Your task to perform on an android device: open app "Reddit" (install if not already installed), go to login, and select forgot password Image 0: 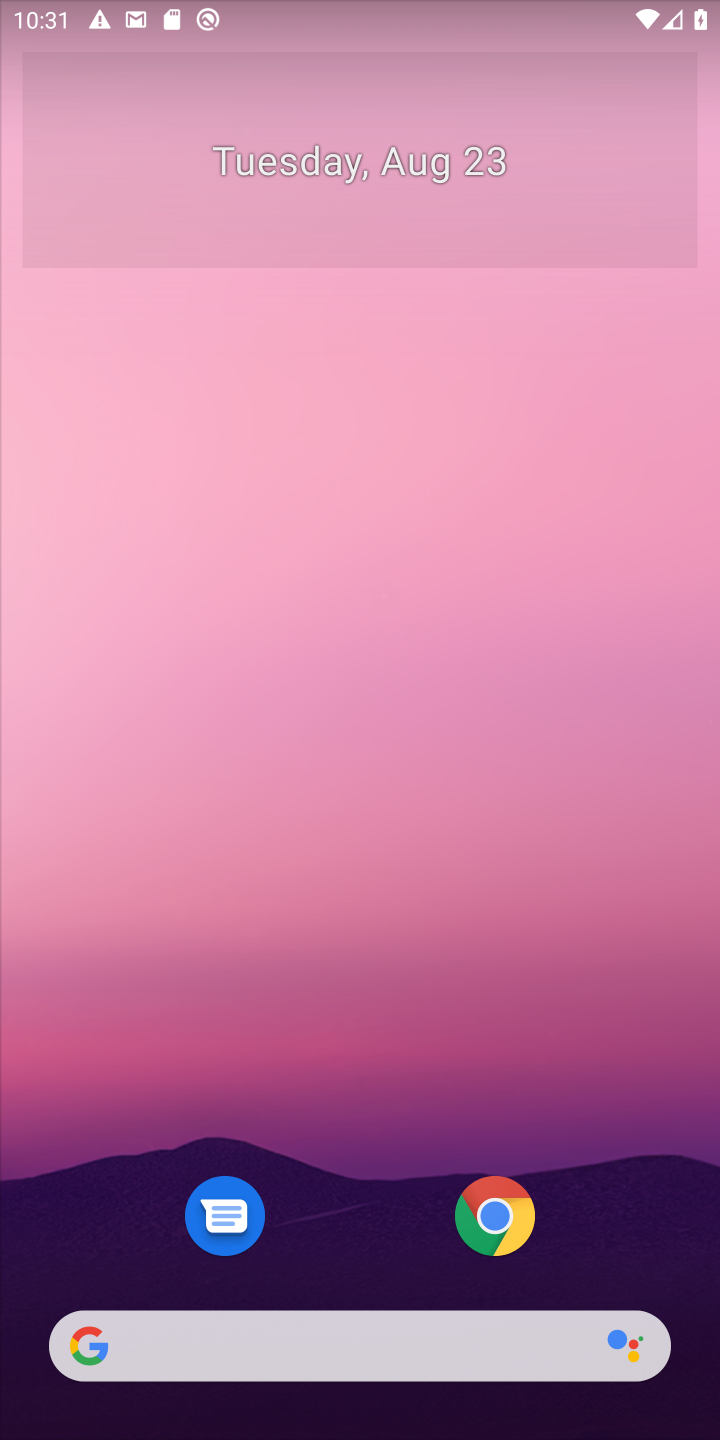
Step 0: drag from (314, 1329) to (425, 31)
Your task to perform on an android device: open app "Reddit" (install if not already installed), go to login, and select forgot password Image 1: 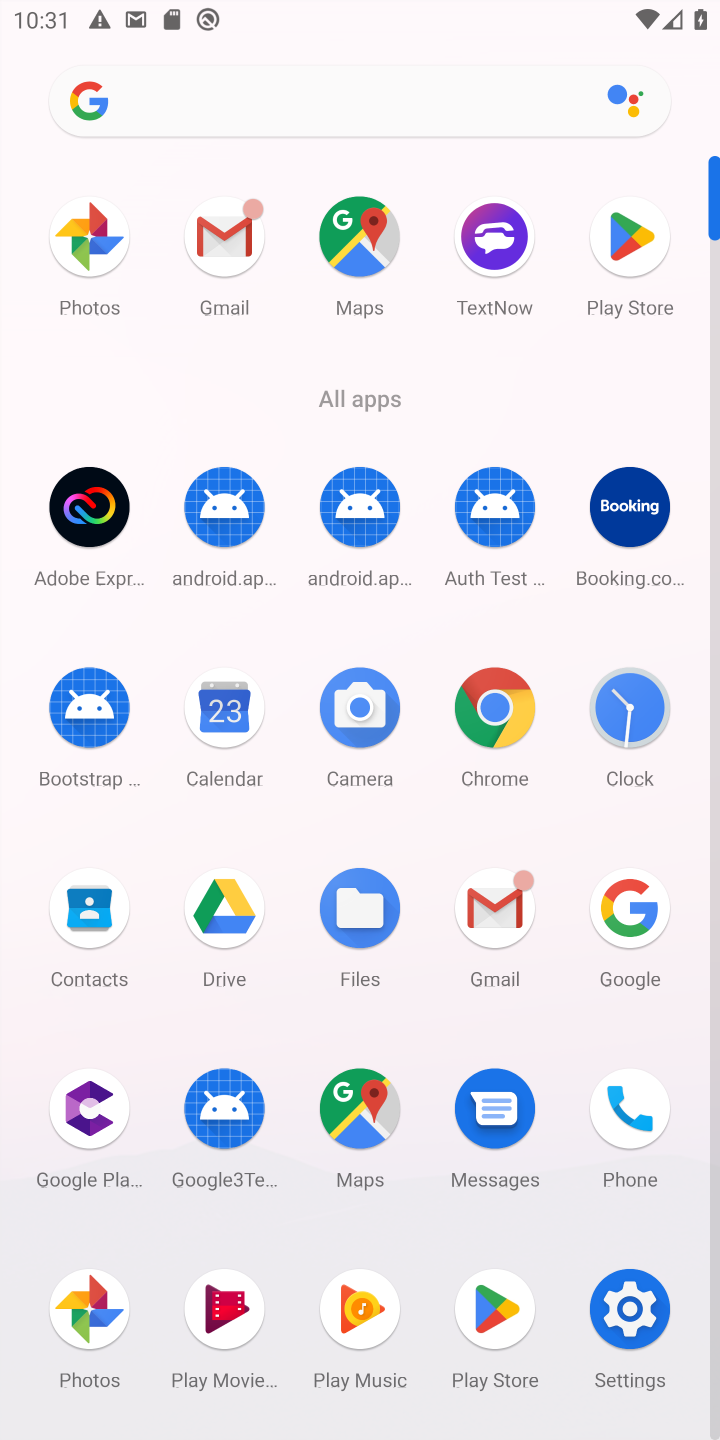
Step 1: click (639, 236)
Your task to perform on an android device: open app "Reddit" (install if not already installed), go to login, and select forgot password Image 2: 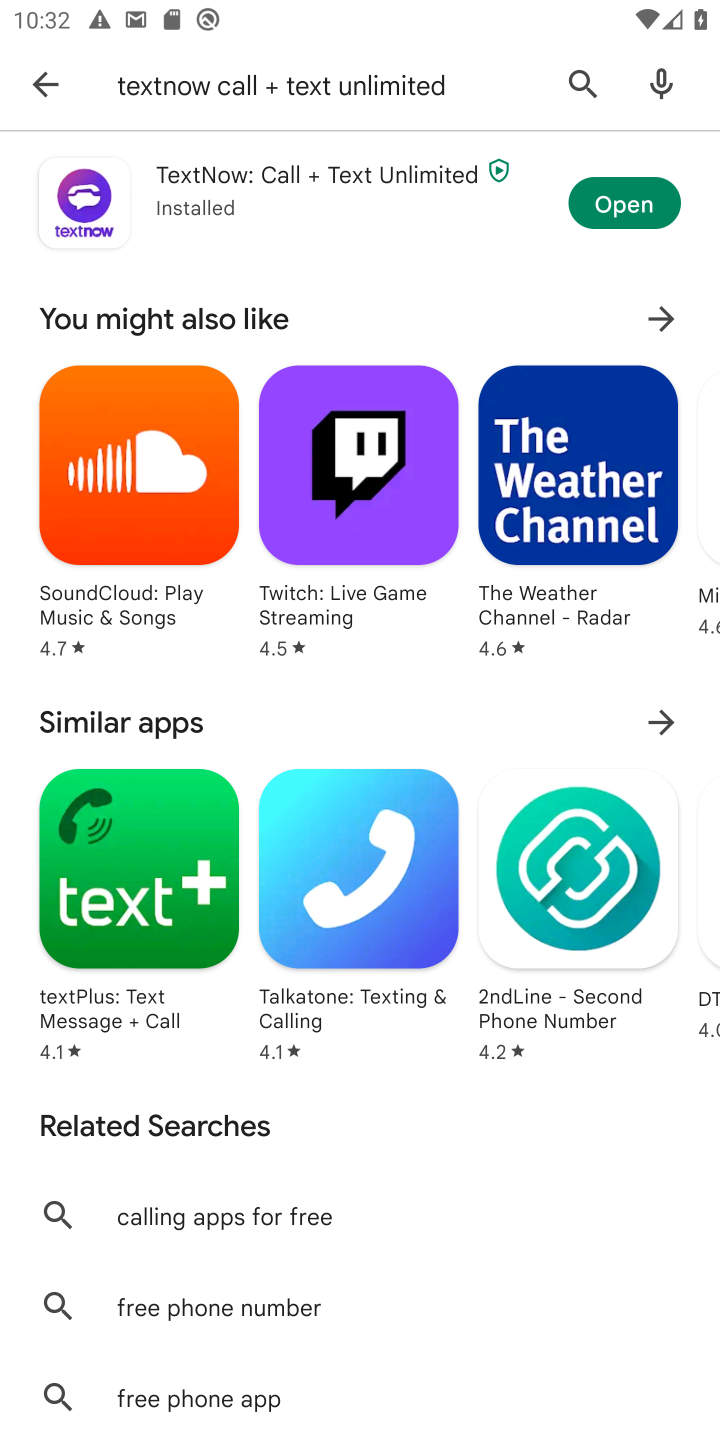
Step 2: press back button
Your task to perform on an android device: open app "Reddit" (install if not already installed), go to login, and select forgot password Image 3: 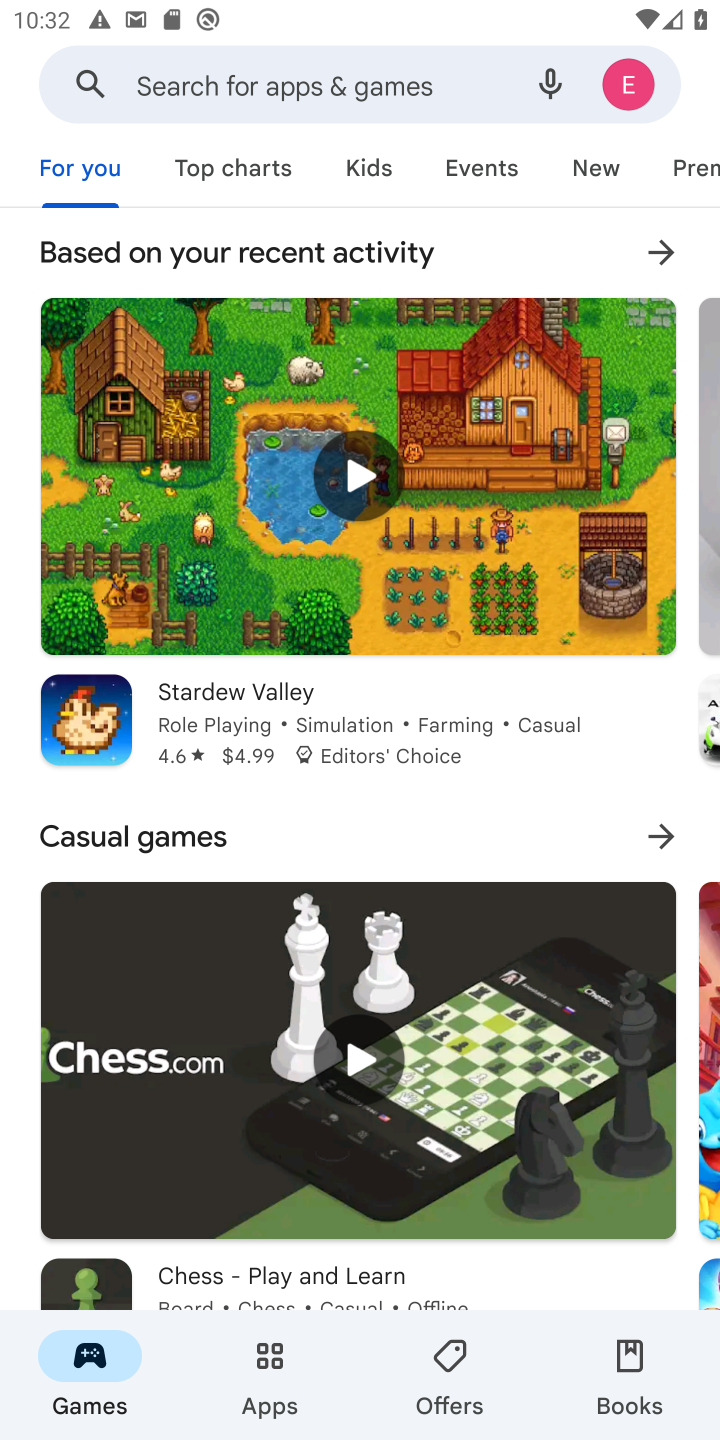
Step 3: click (370, 81)
Your task to perform on an android device: open app "Reddit" (install if not already installed), go to login, and select forgot password Image 4: 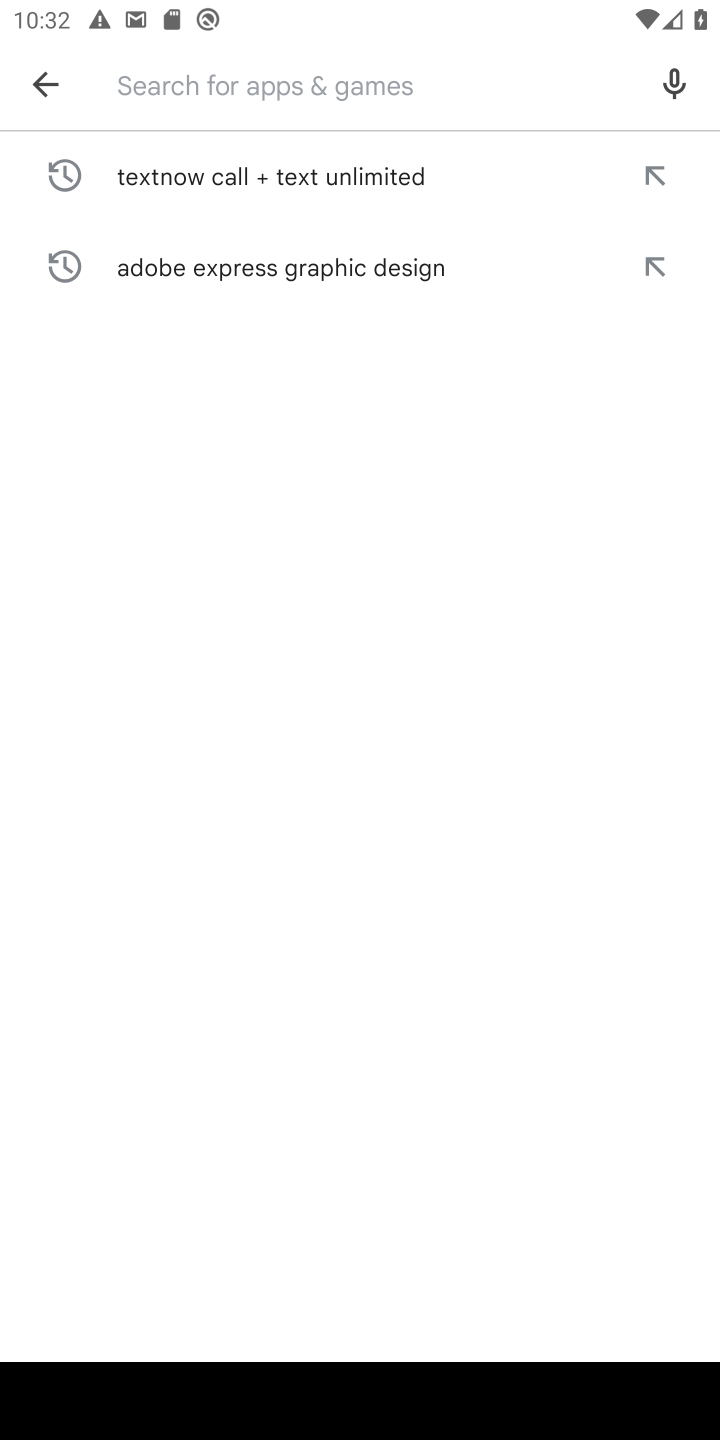
Step 4: type "Reddit"
Your task to perform on an android device: open app "Reddit" (install if not already installed), go to login, and select forgot password Image 5: 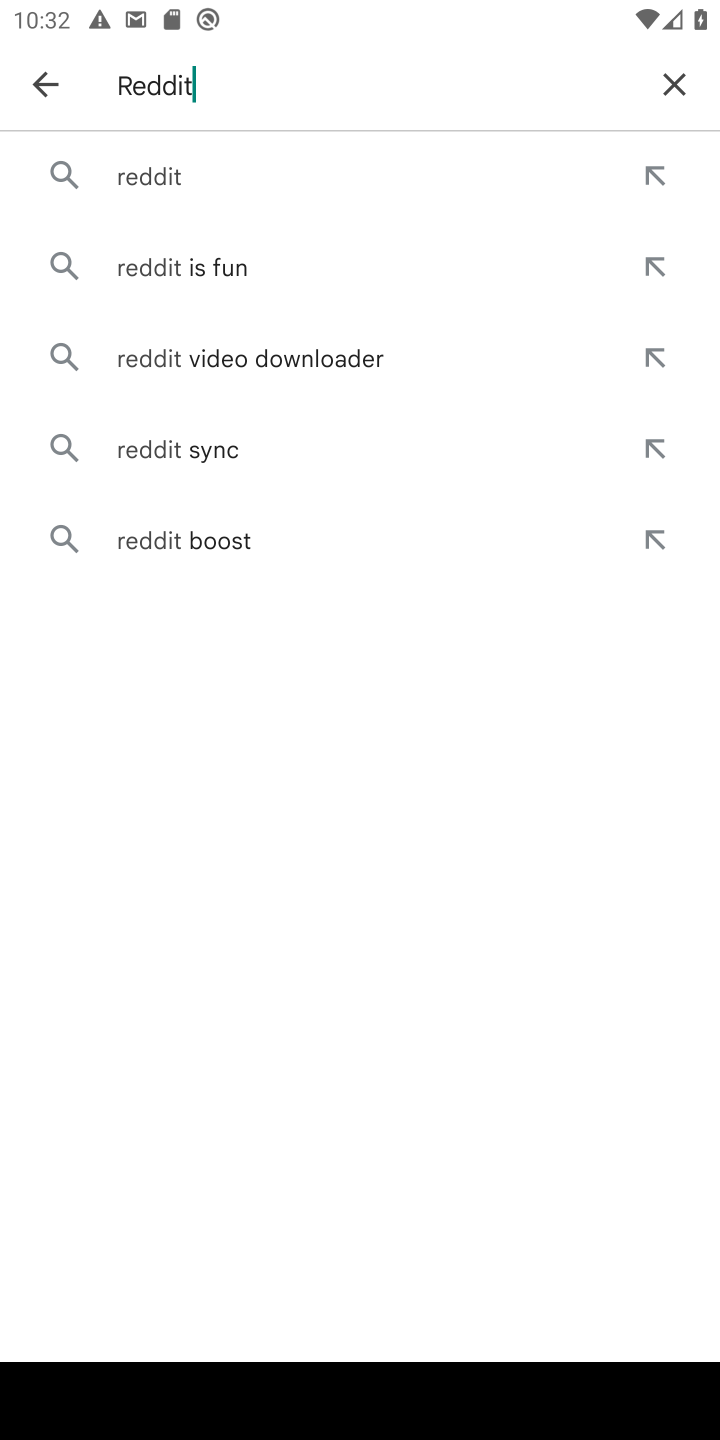
Step 5: click (161, 181)
Your task to perform on an android device: open app "Reddit" (install if not already installed), go to login, and select forgot password Image 6: 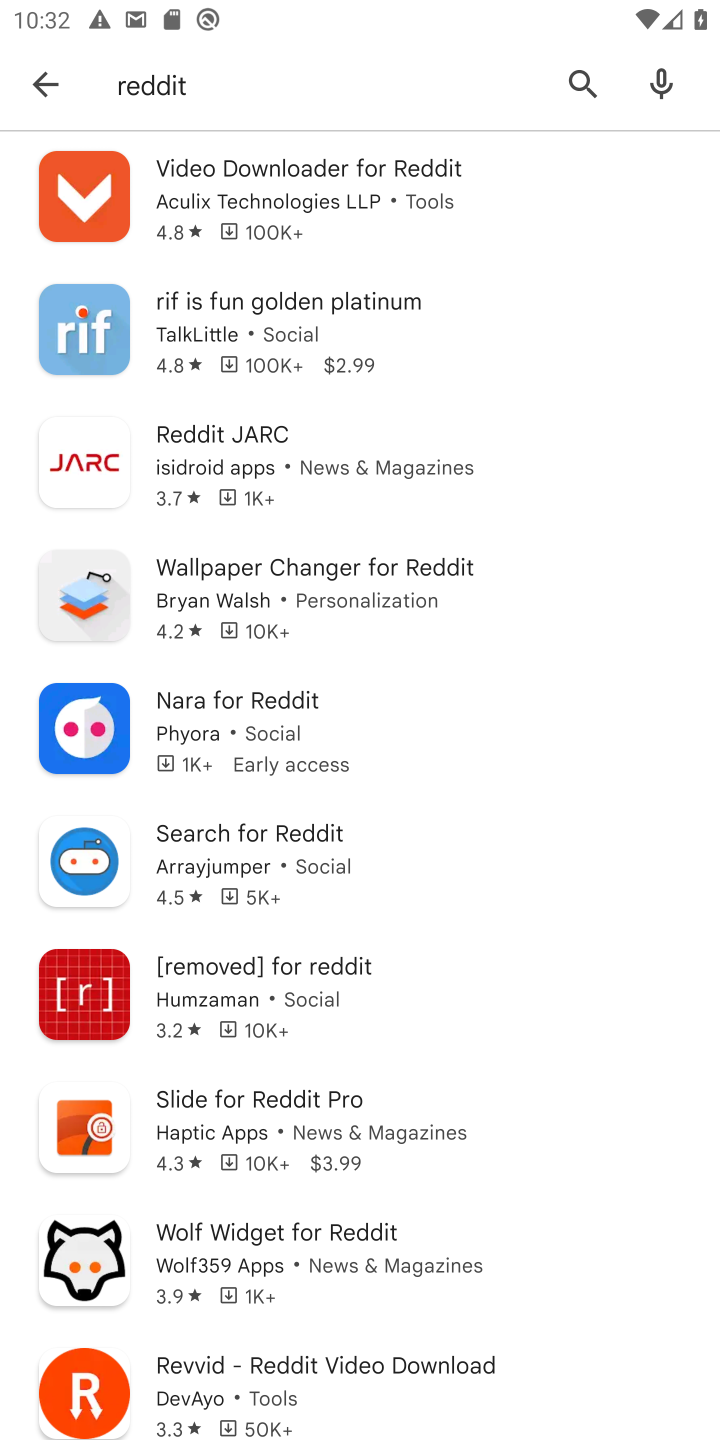
Step 6: drag from (313, 1048) to (402, 854)
Your task to perform on an android device: open app "Reddit" (install if not already installed), go to login, and select forgot password Image 7: 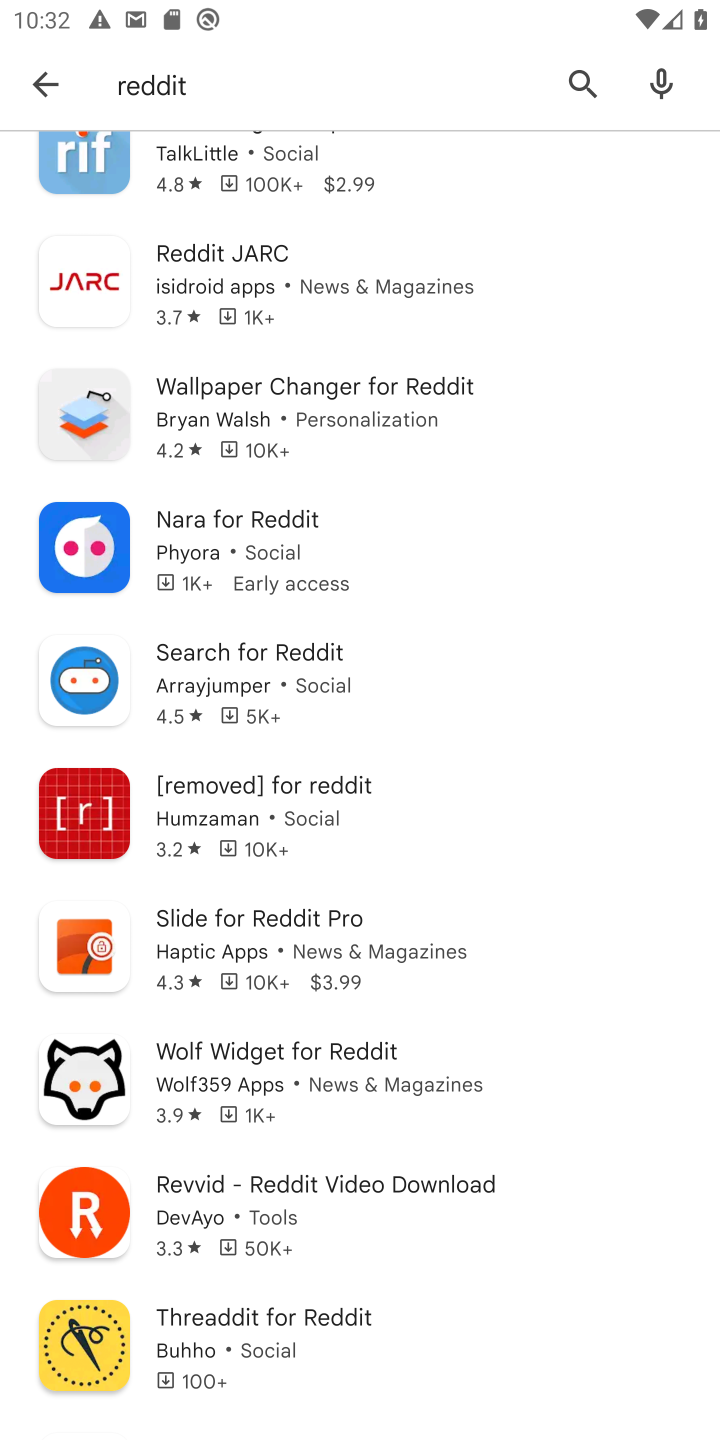
Step 7: drag from (415, 1244) to (536, 1024)
Your task to perform on an android device: open app "Reddit" (install if not already installed), go to login, and select forgot password Image 8: 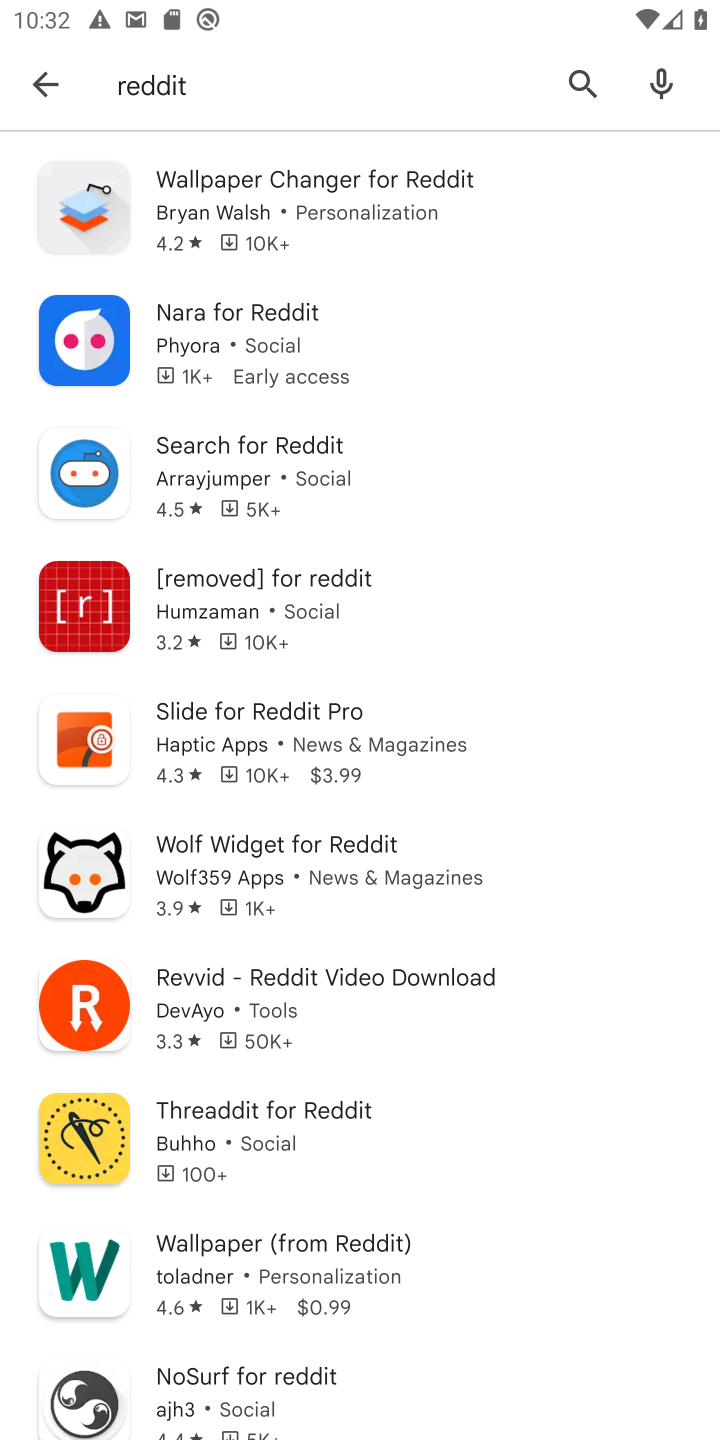
Step 8: drag from (417, 1293) to (535, 1096)
Your task to perform on an android device: open app "Reddit" (install if not already installed), go to login, and select forgot password Image 9: 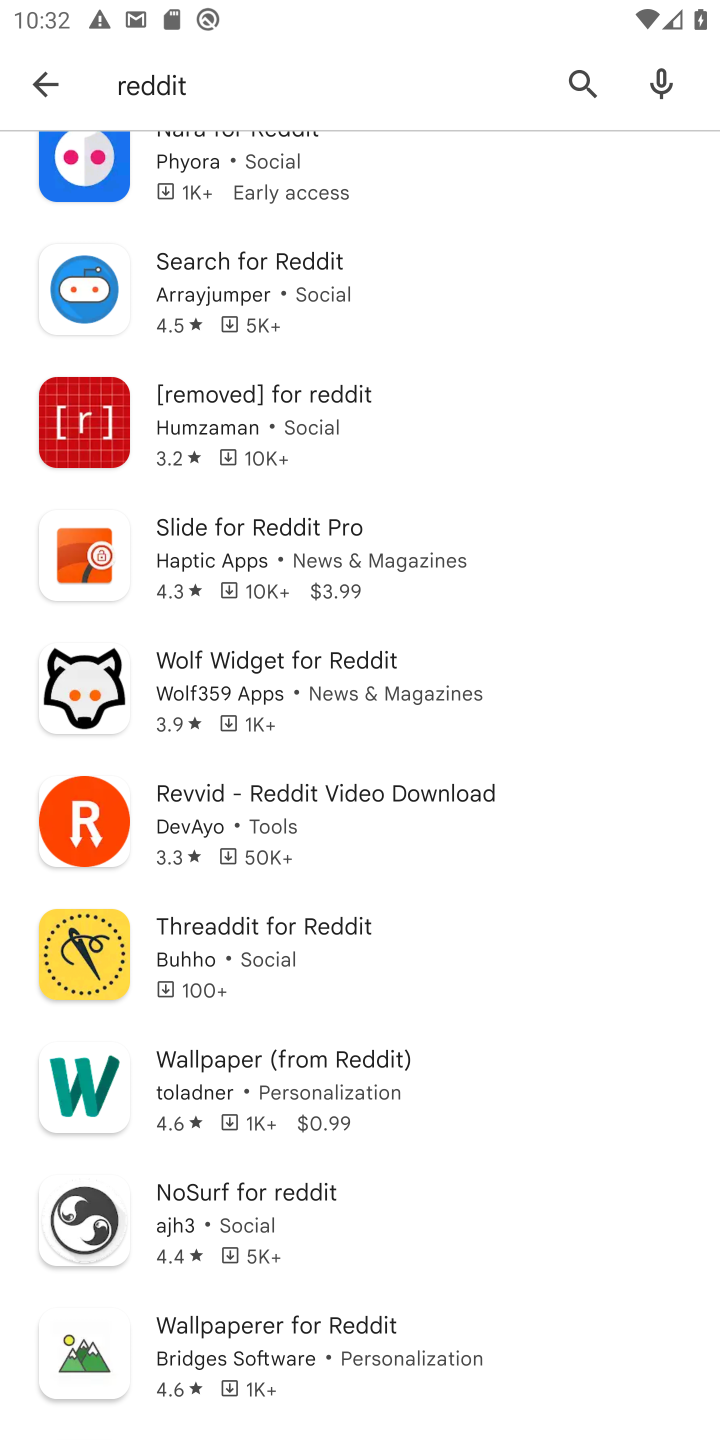
Step 9: drag from (367, 1266) to (544, 1009)
Your task to perform on an android device: open app "Reddit" (install if not already installed), go to login, and select forgot password Image 10: 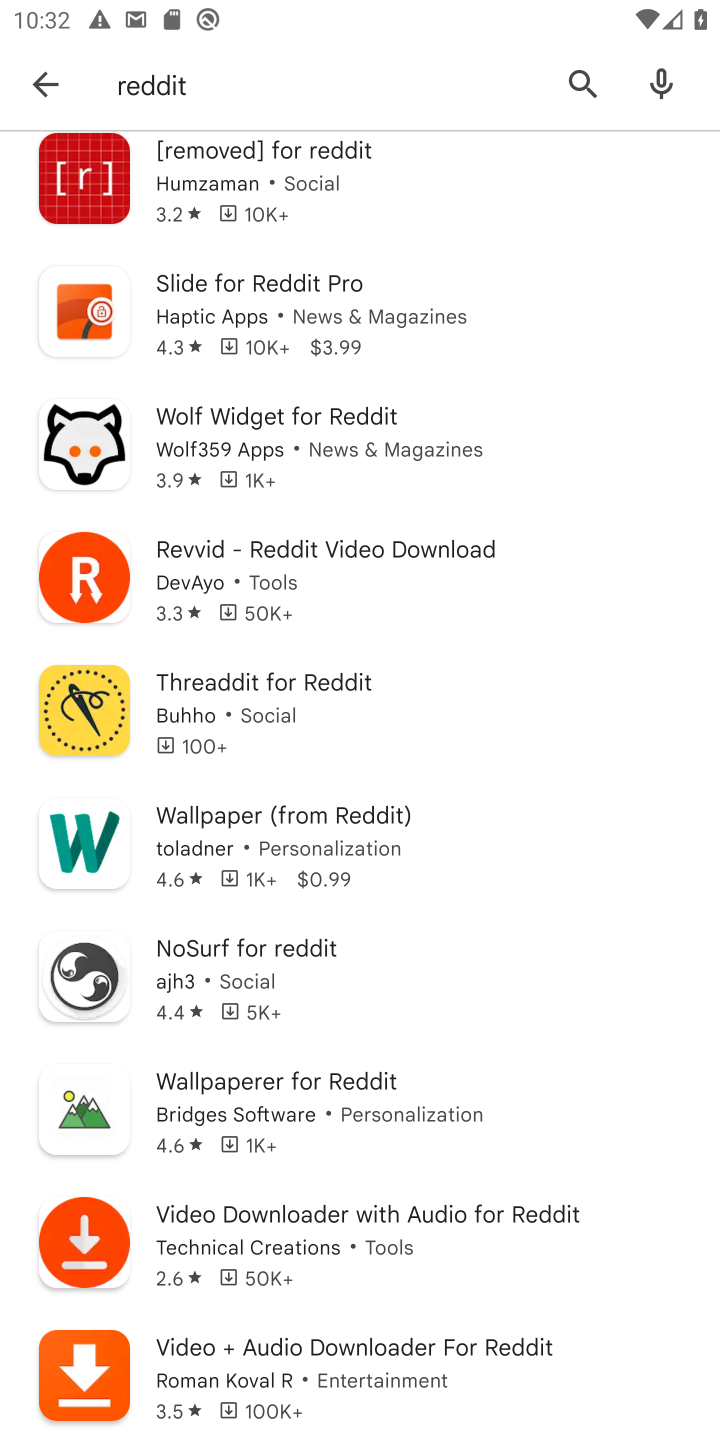
Step 10: drag from (390, 989) to (534, 767)
Your task to perform on an android device: open app "Reddit" (install if not already installed), go to login, and select forgot password Image 11: 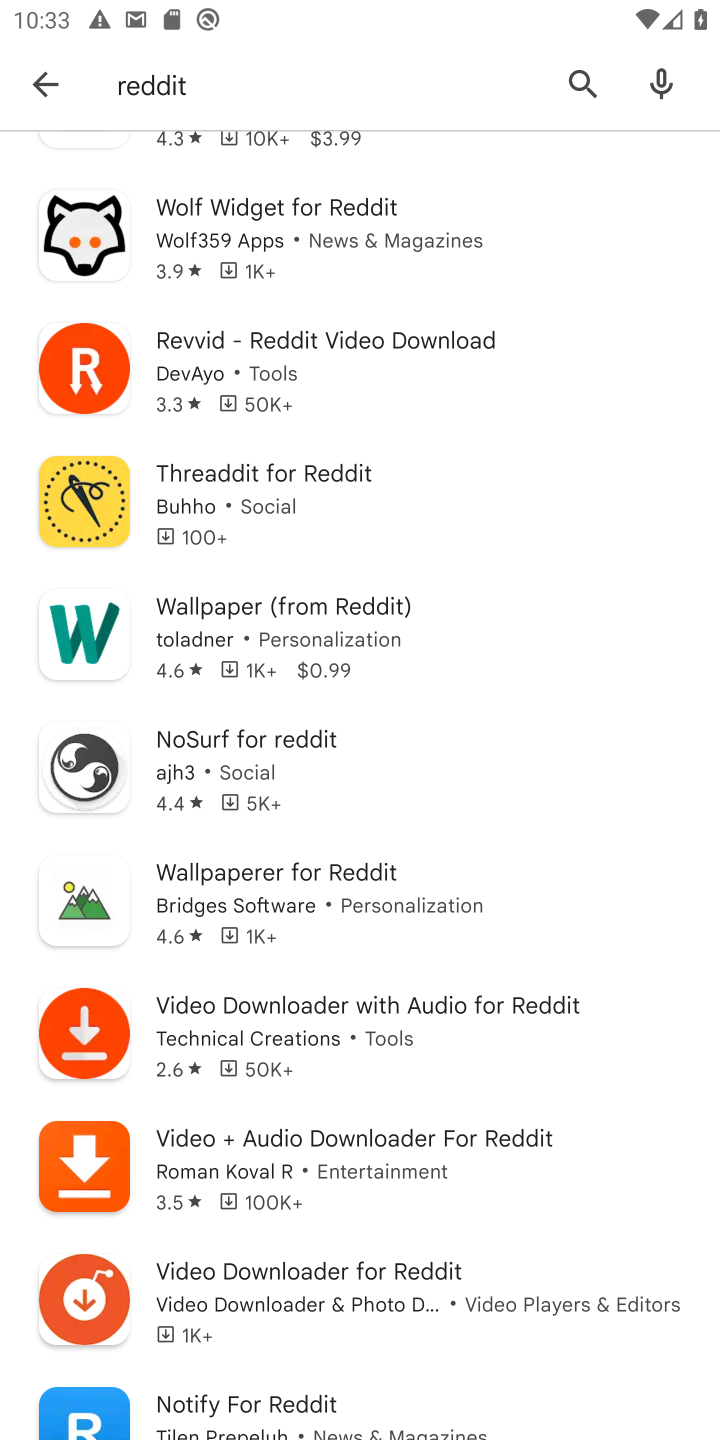
Step 11: drag from (470, 551) to (464, 871)
Your task to perform on an android device: open app "Reddit" (install if not already installed), go to login, and select forgot password Image 12: 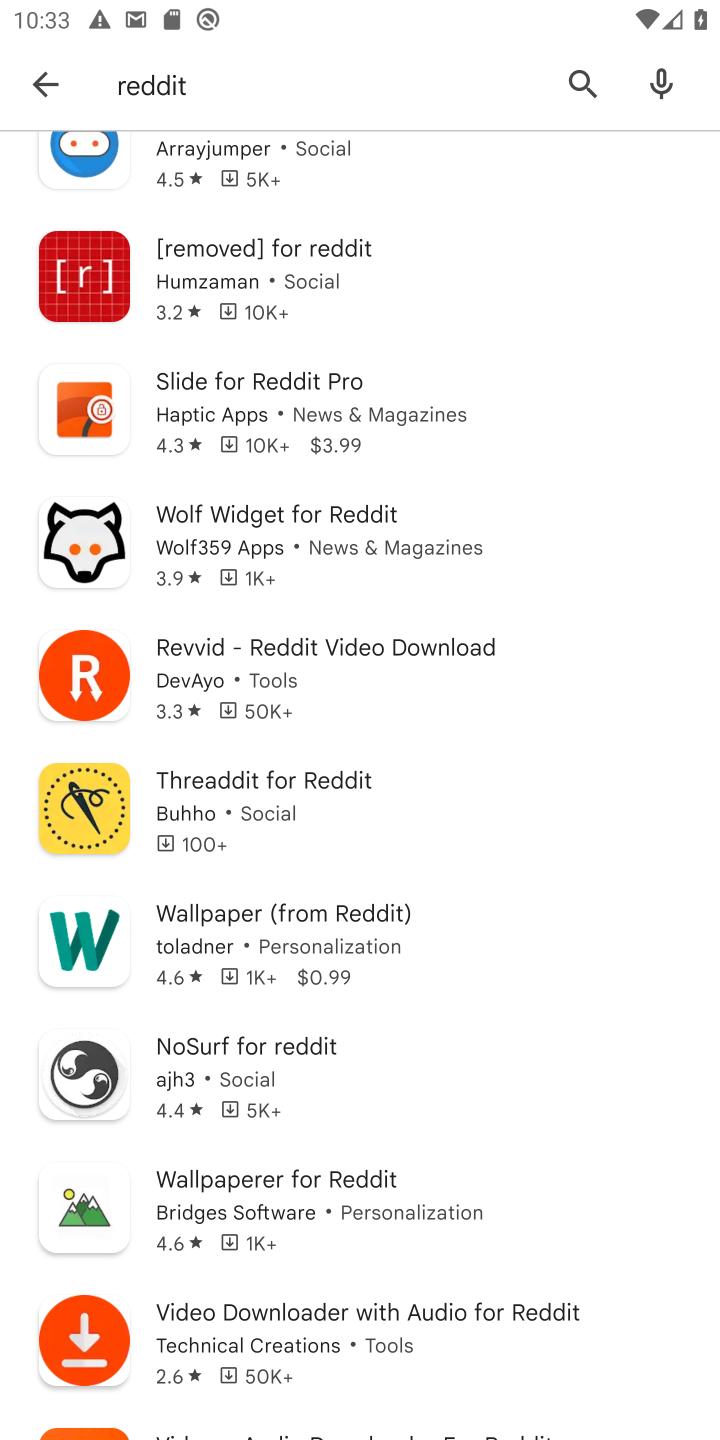
Step 12: drag from (391, 443) to (432, 977)
Your task to perform on an android device: open app "Reddit" (install if not already installed), go to login, and select forgot password Image 13: 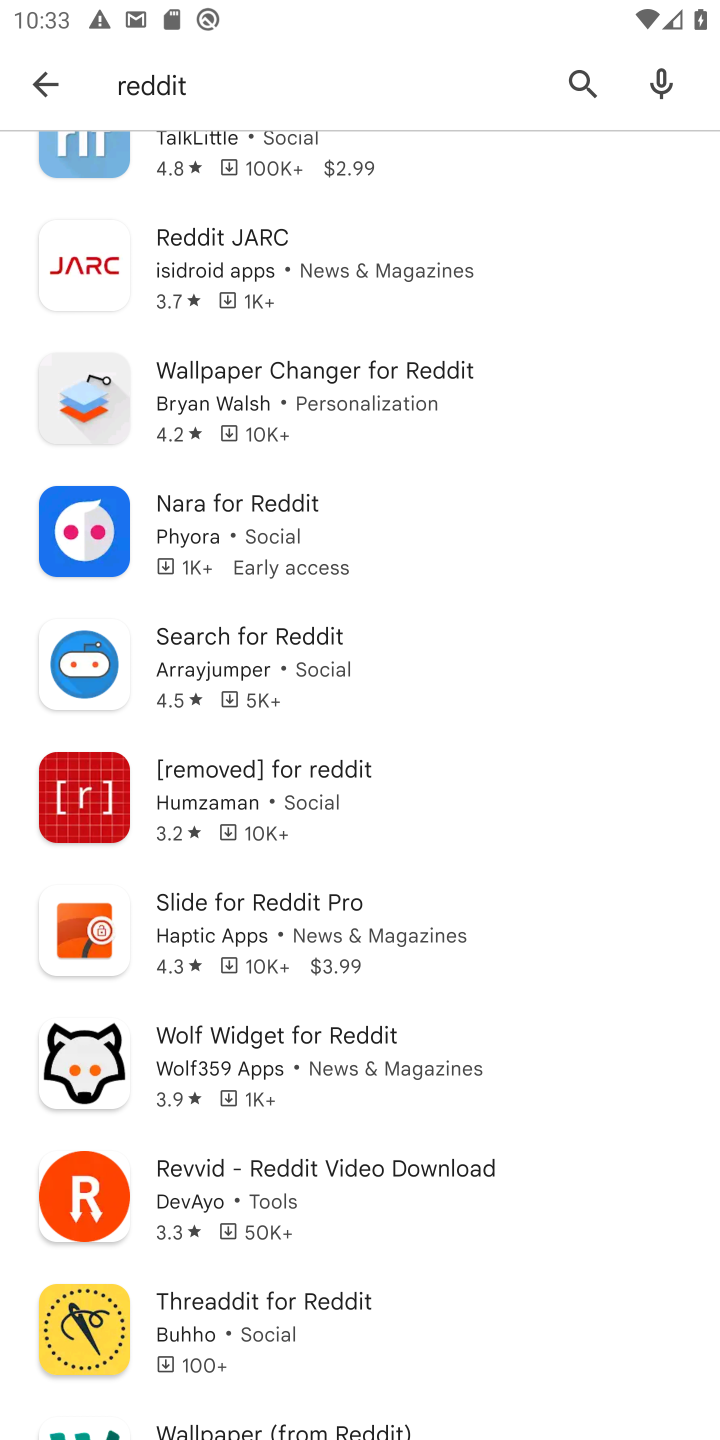
Step 13: drag from (403, 217) to (438, 849)
Your task to perform on an android device: open app "Reddit" (install if not already installed), go to login, and select forgot password Image 14: 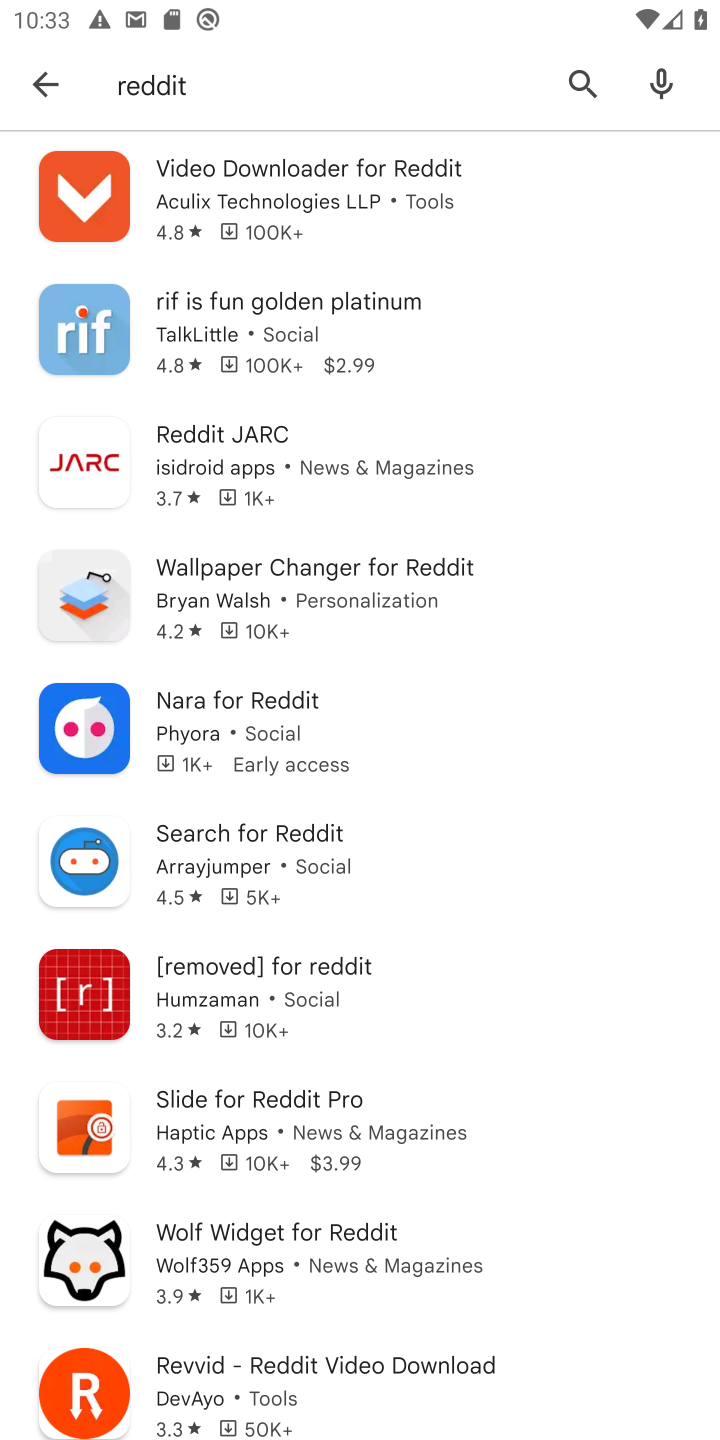
Step 14: drag from (557, 1263) to (719, 987)
Your task to perform on an android device: open app "Reddit" (install if not already installed), go to login, and select forgot password Image 15: 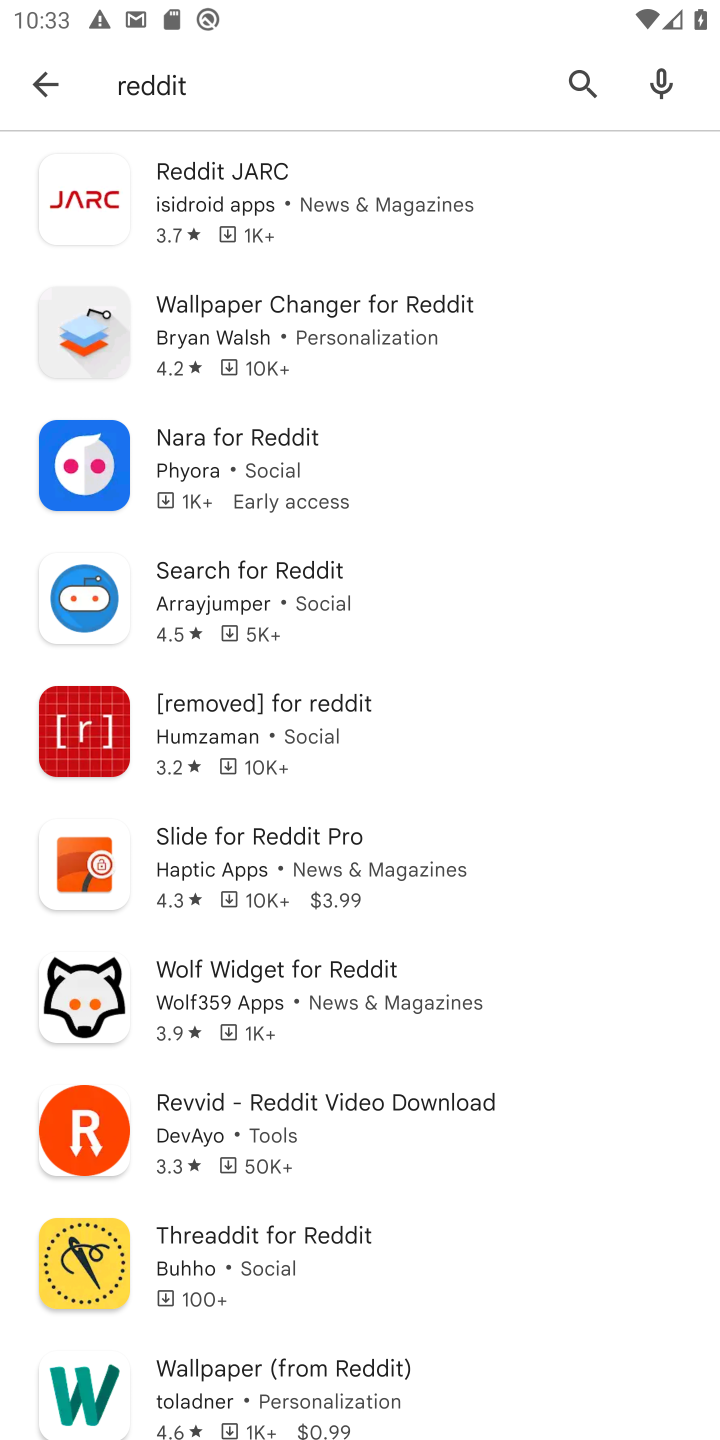
Step 15: drag from (565, 1255) to (664, 970)
Your task to perform on an android device: open app "Reddit" (install if not already installed), go to login, and select forgot password Image 16: 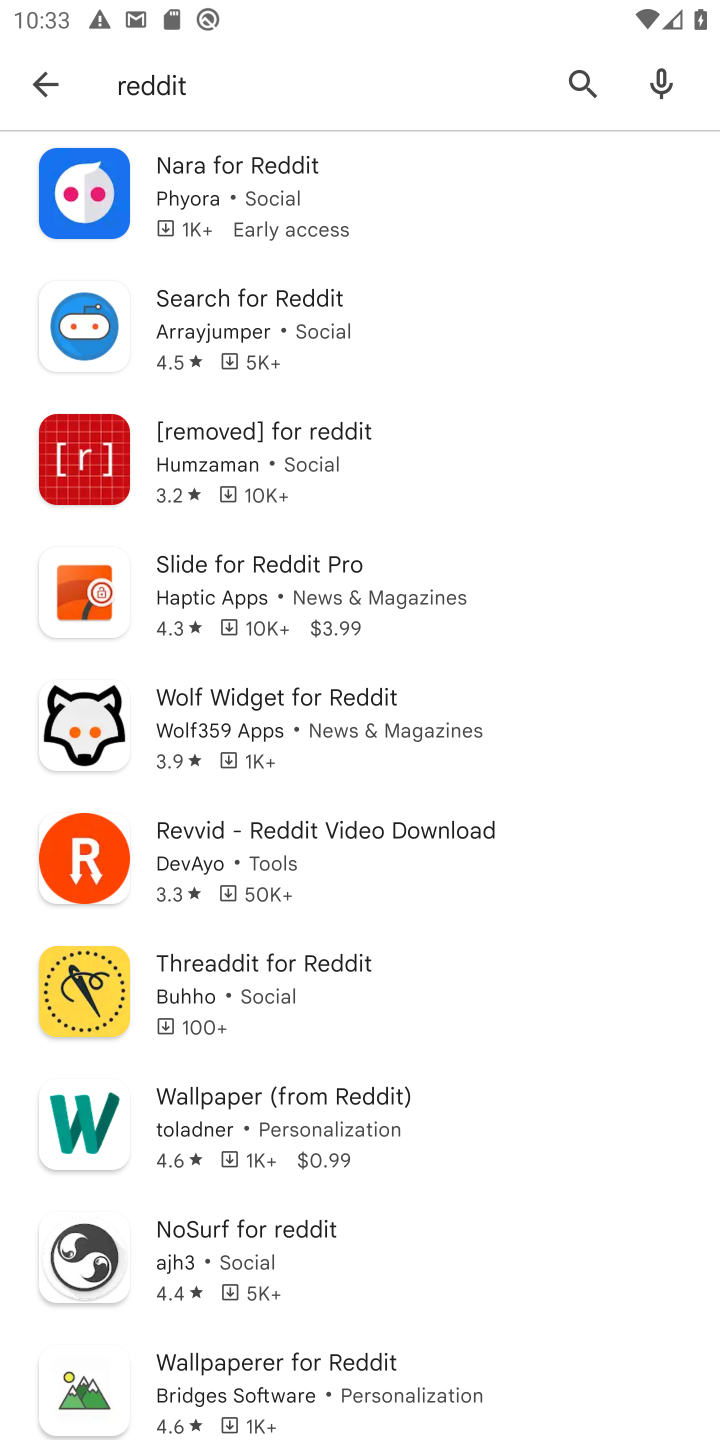
Step 16: drag from (407, 1320) to (566, 1072)
Your task to perform on an android device: open app "Reddit" (install if not already installed), go to login, and select forgot password Image 17: 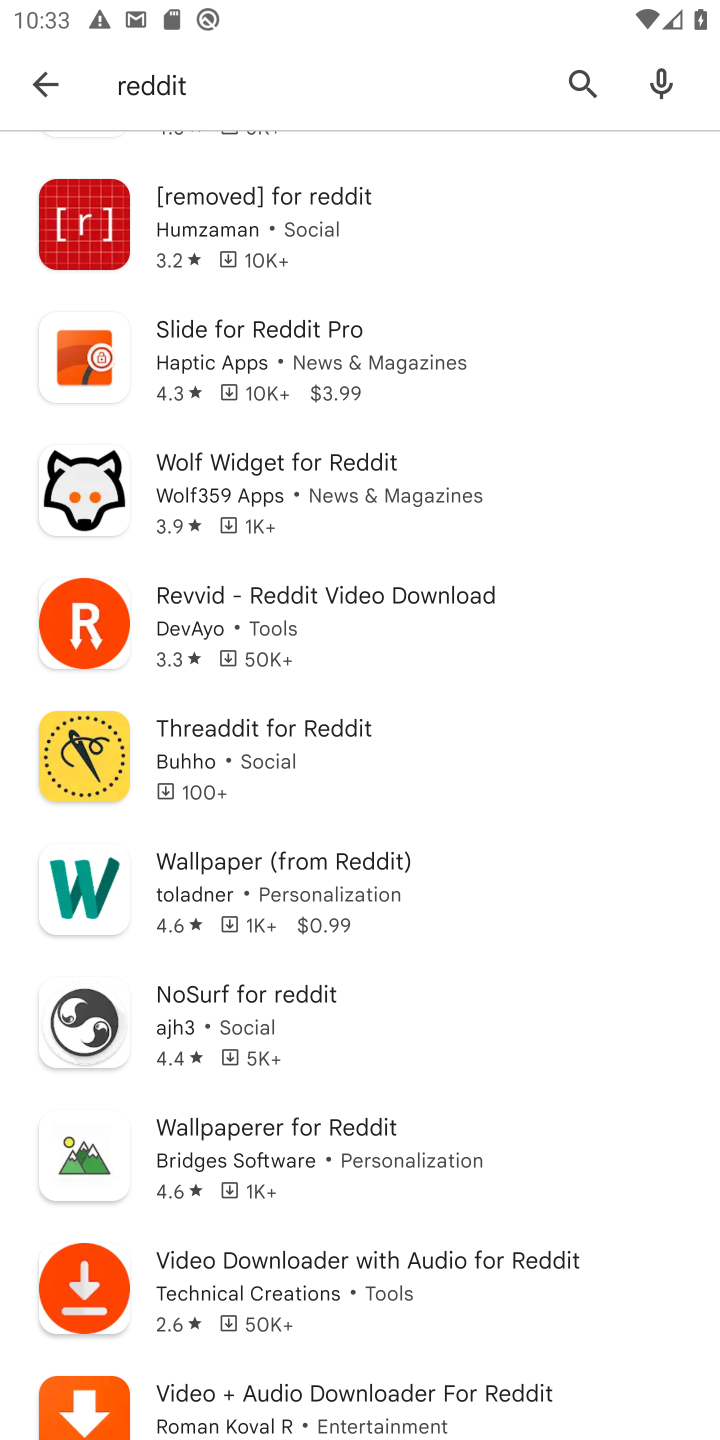
Step 17: drag from (366, 1314) to (519, 989)
Your task to perform on an android device: open app "Reddit" (install if not already installed), go to login, and select forgot password Image 18: 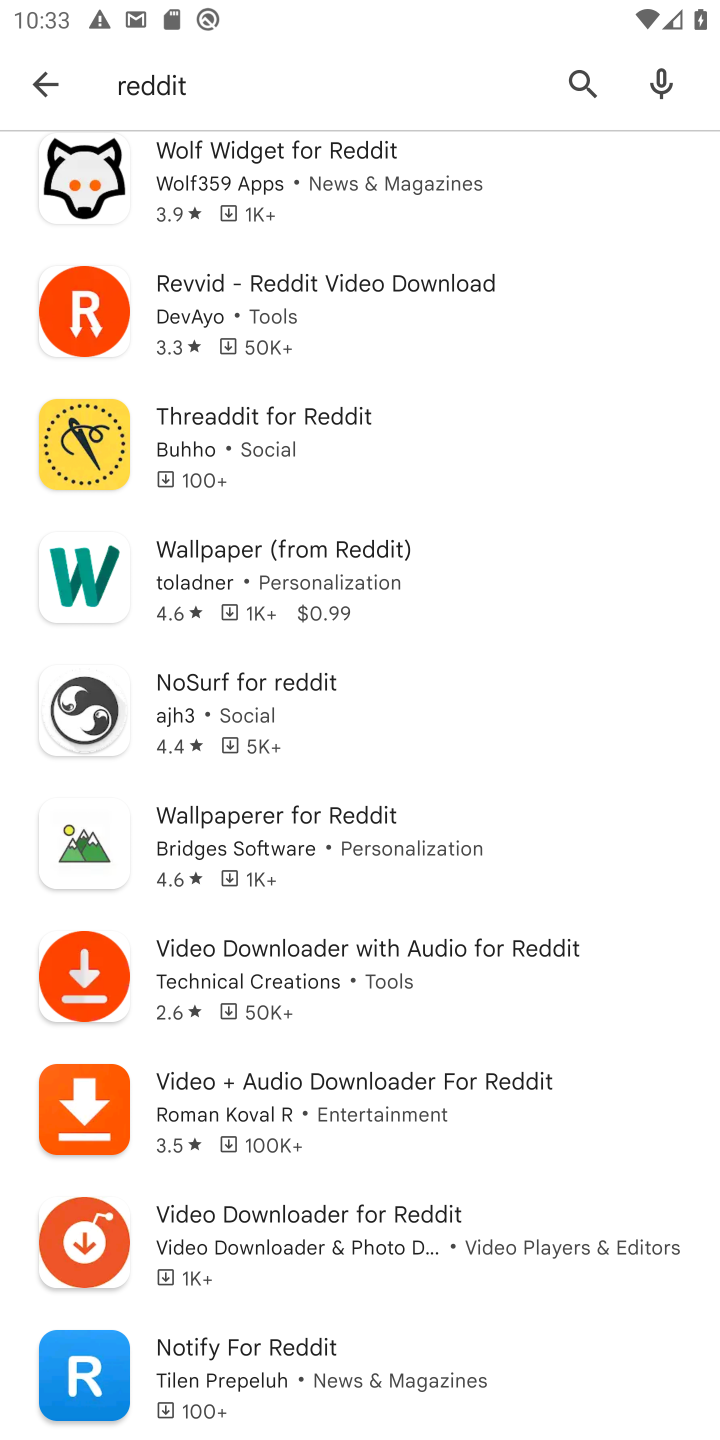
Step 18: drag from (303, 1270) to (546, 976)
Your task to perform on an android device: open app "Reddit" (install if not already installed), go to login, and select forgot password Image 19: 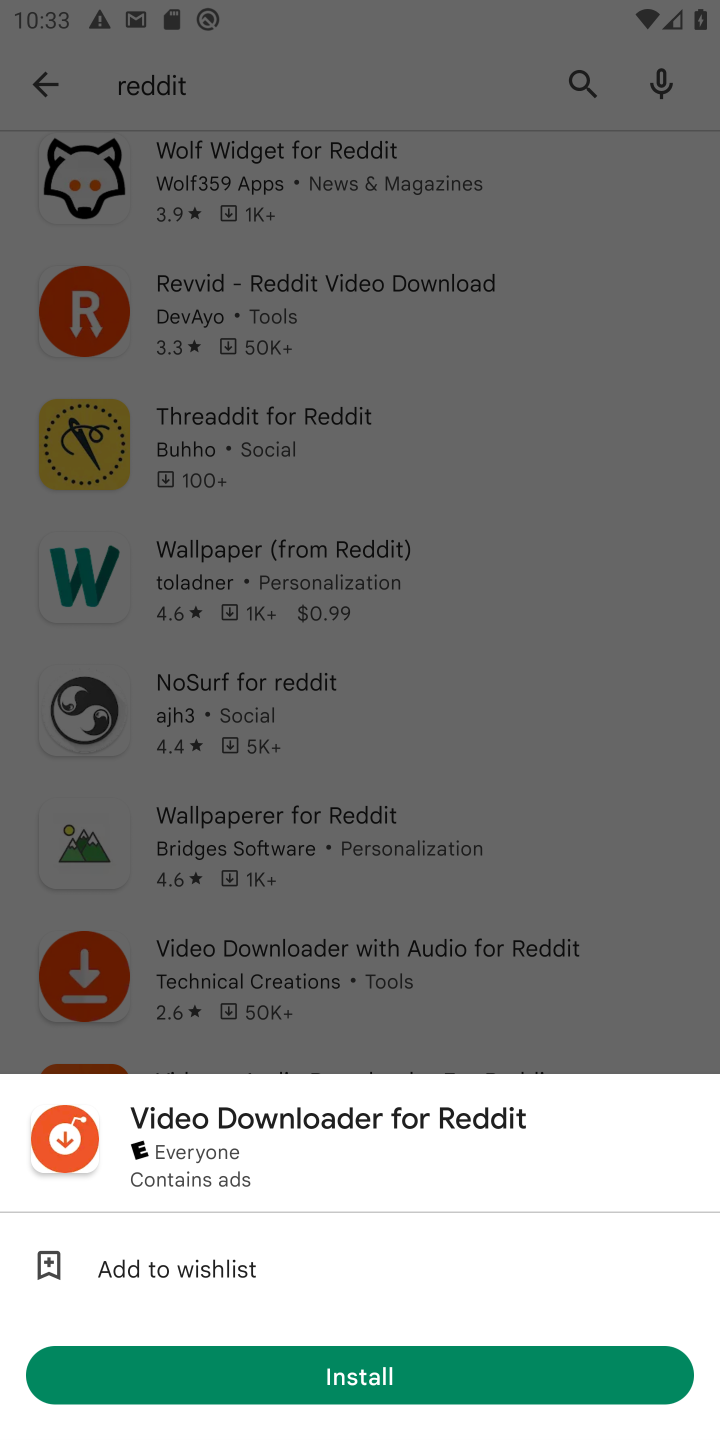
Step 19: click (530, 605)
Your task to perform on an android device: open app "Reddit" (install if not already installed), go to login, and select forgot password Image 20: 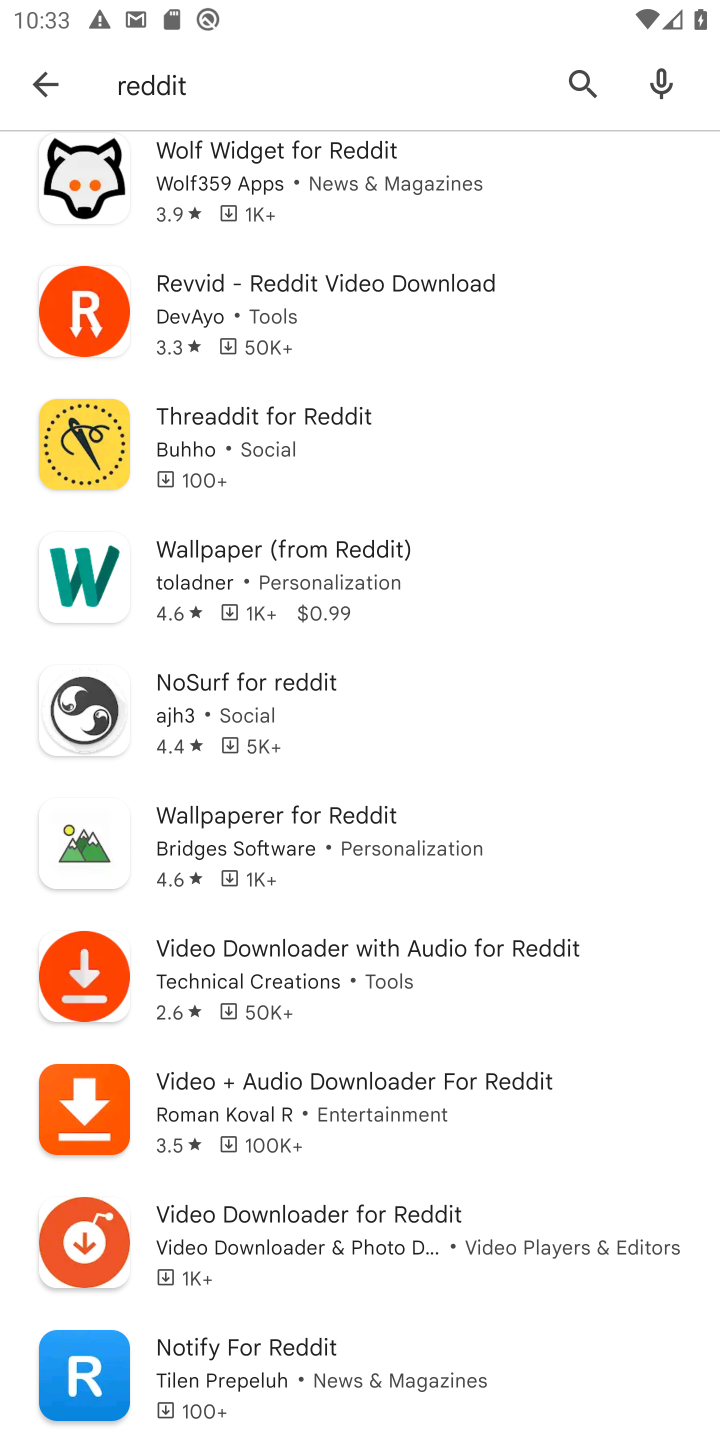
Step 20: drag from (369, 1192) to (621, 737)
Your task to perform on an android device: open app "Reddit" (install if not already installed), go to login, and select forgot password Image 21: 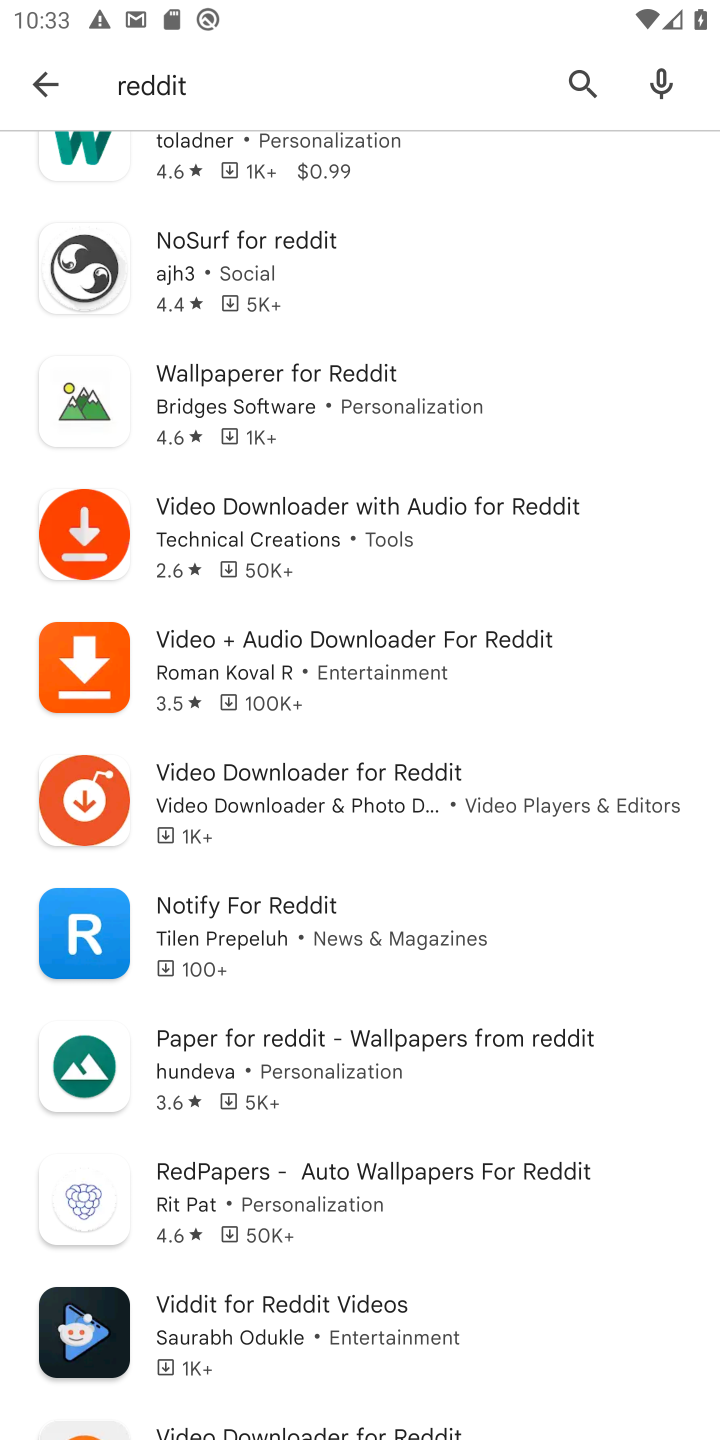
Step 21: drag from (393, 1351) to (567, 950)
Your task to perform on an android device: open app "Reddit" (install if not already installed), go to login, and select forgot password Image 22: 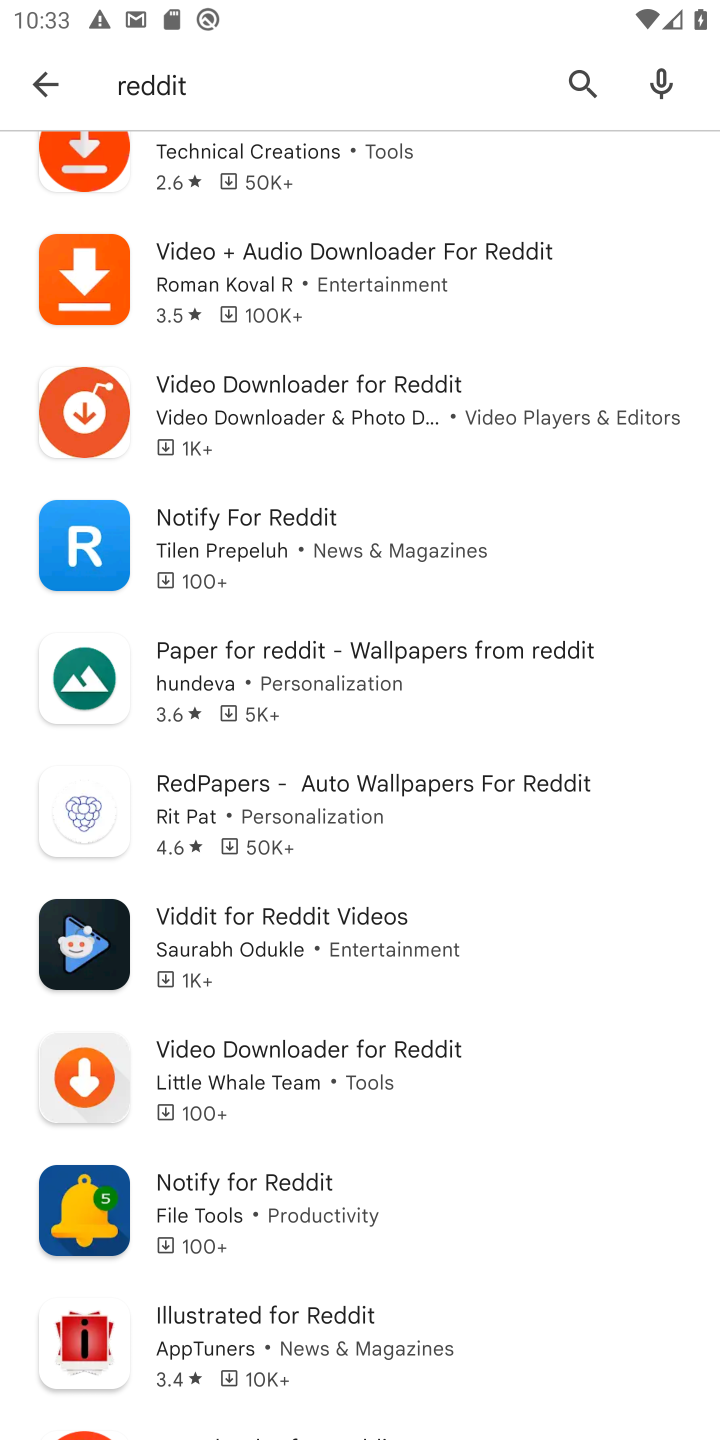
Step 22: drag from (388, 1291) to (576, 834)
Your task to perform on an android device: open app "Reddit" (install if not already installed), go to login, and select forgot password Image 23: 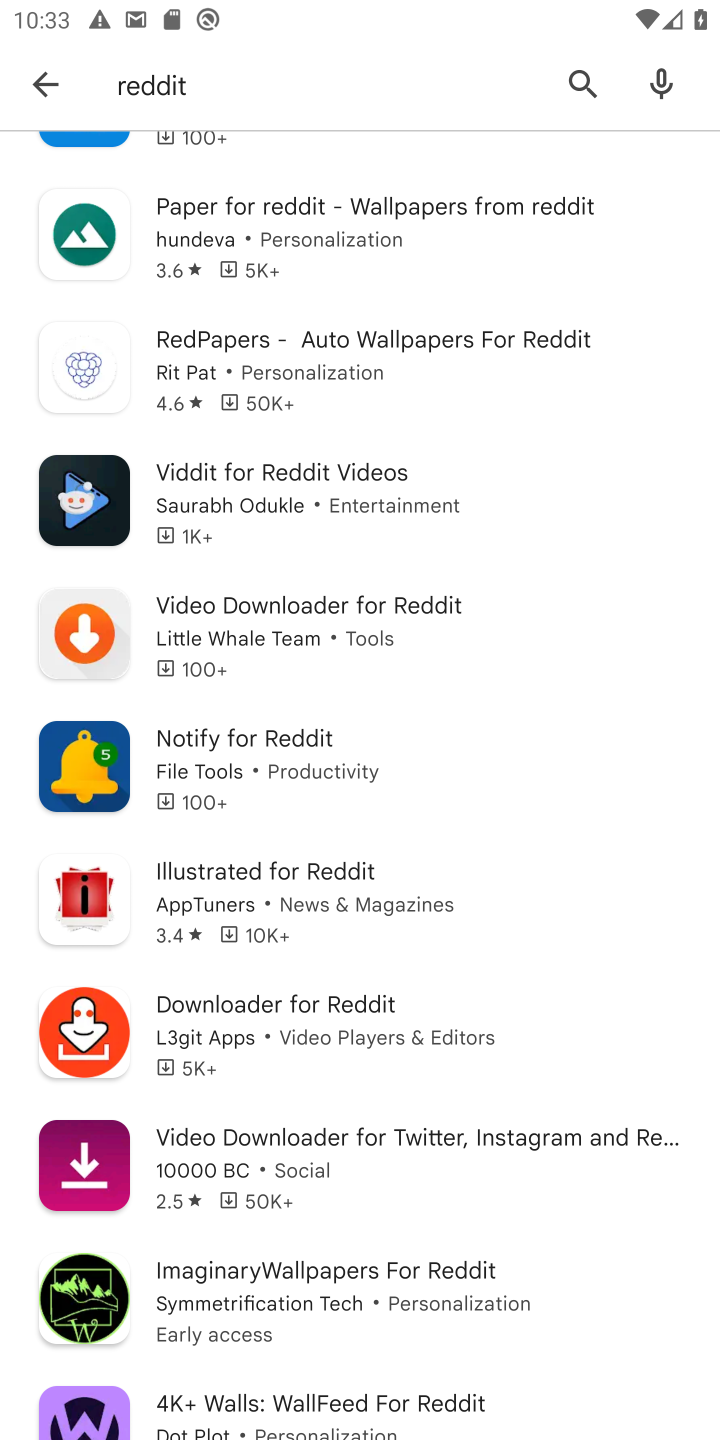
Step 23: drag from (375, 1289) to (596, 796)
Your task to perform on an android device: open app "Reddit" (install if not already installed), go to login, and select forgot password Image 24: 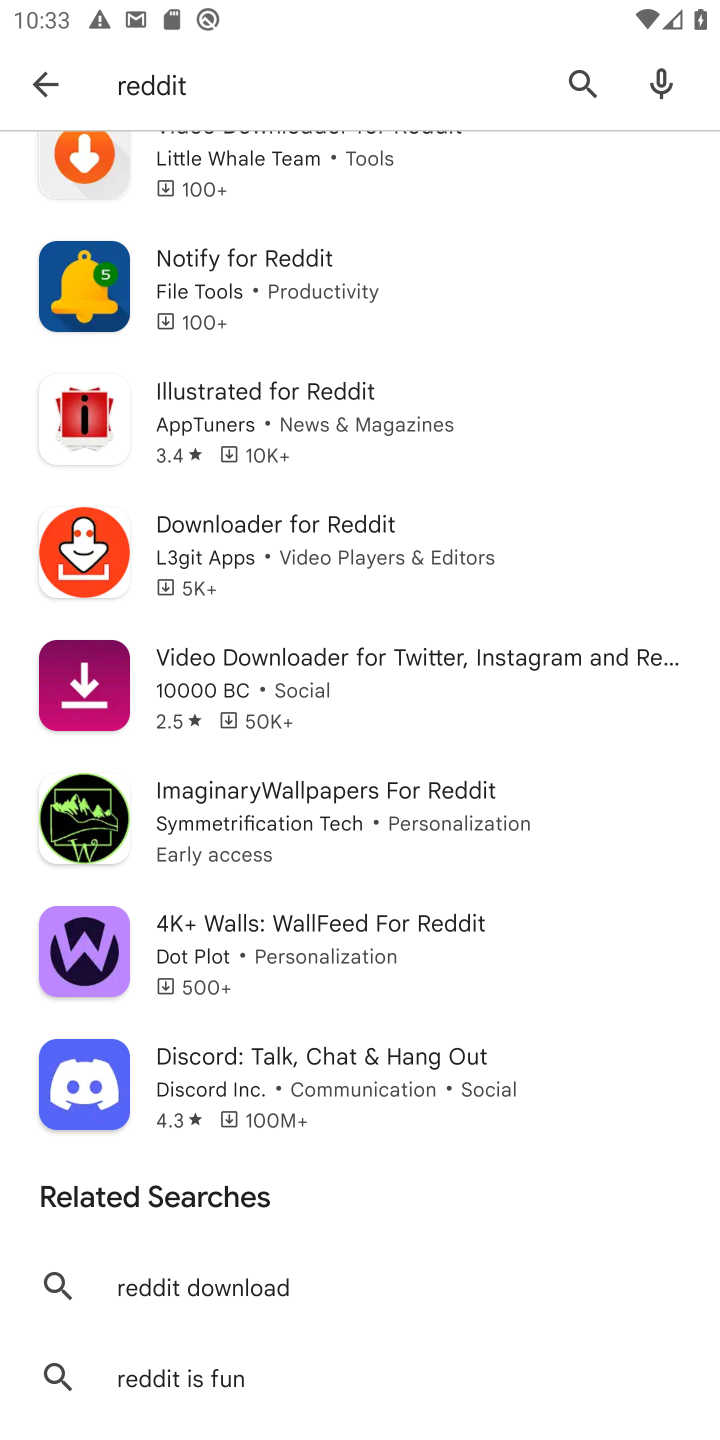
Step 24: click (281, 1275)
Your task to perform on an android device: open app "Reddit" (install if not already installed), go to login, and select forgot password Image 25: 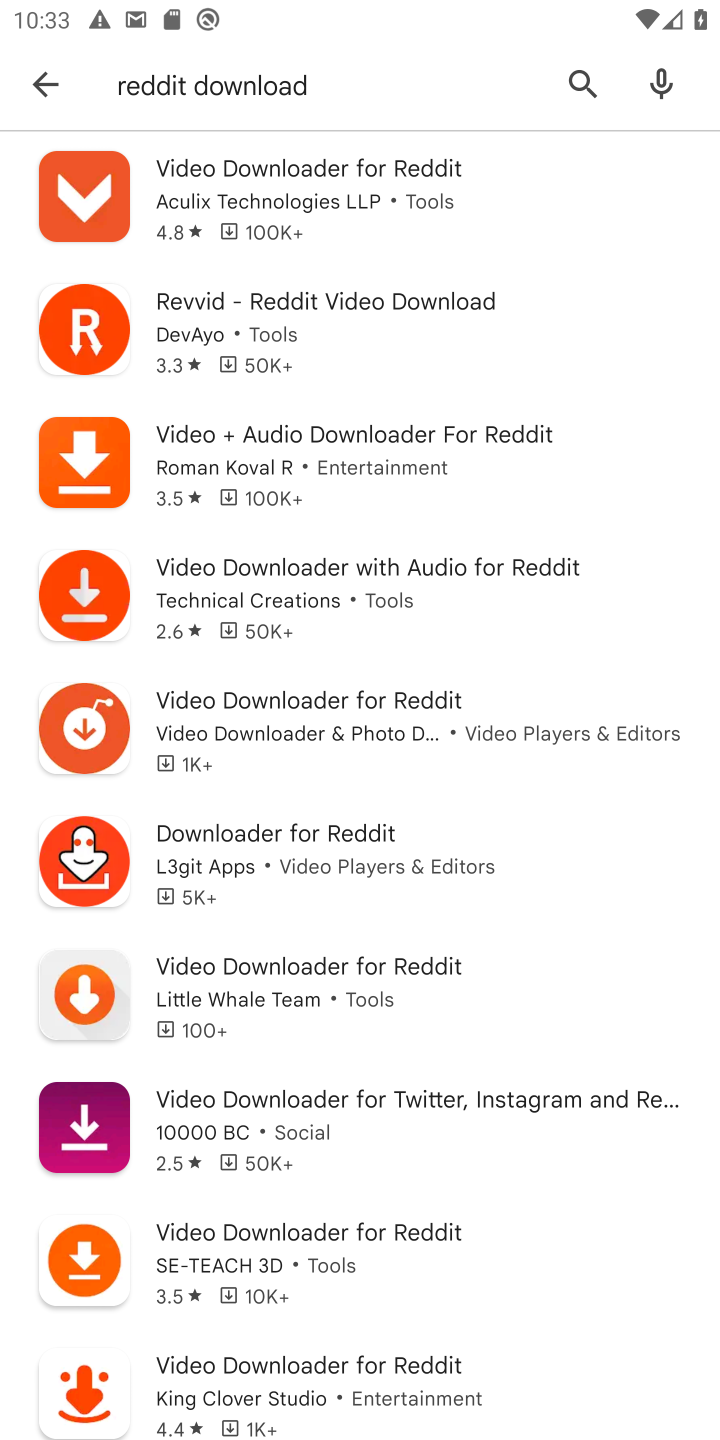
Step 25: task complete